Your task to perform on an android device: check battery use Image 0: 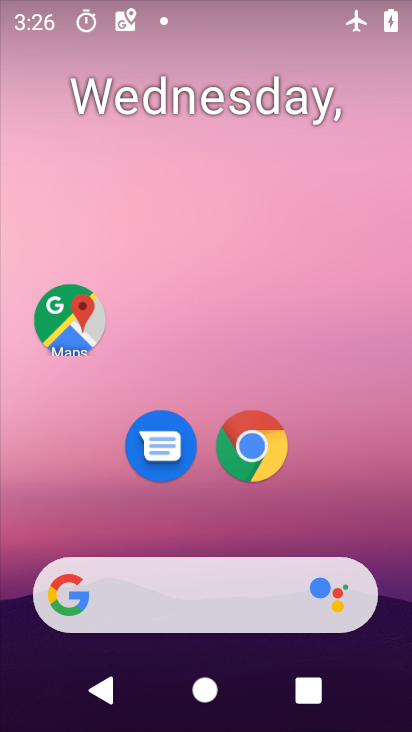
Step 0: drag from (214, 503) to (223, 123)
Your task to perform on an android device: check battery use Image 1: 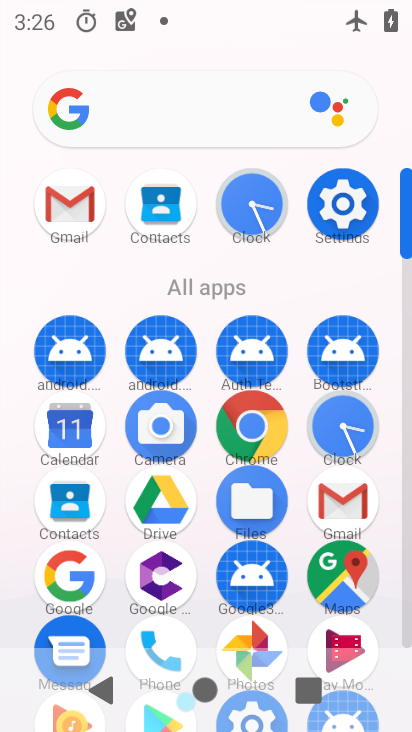
Step 1: click (346, 214)
Your task to perform on an android device: check battery use Image 2: 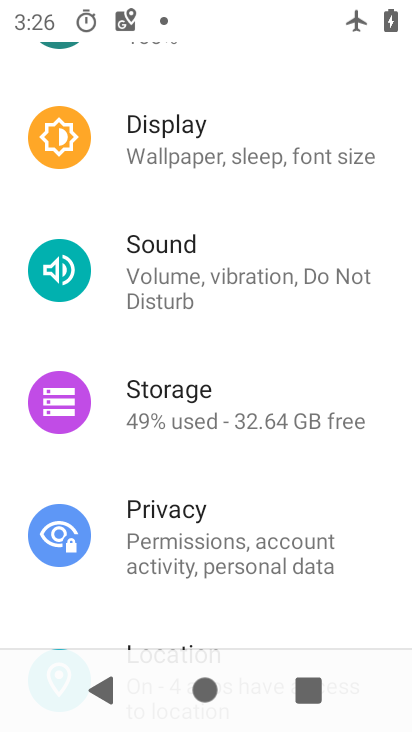
Step 2: drag from (228, 216) to (248, 576)
Your task to perform on an android device: check battery use Image 3: 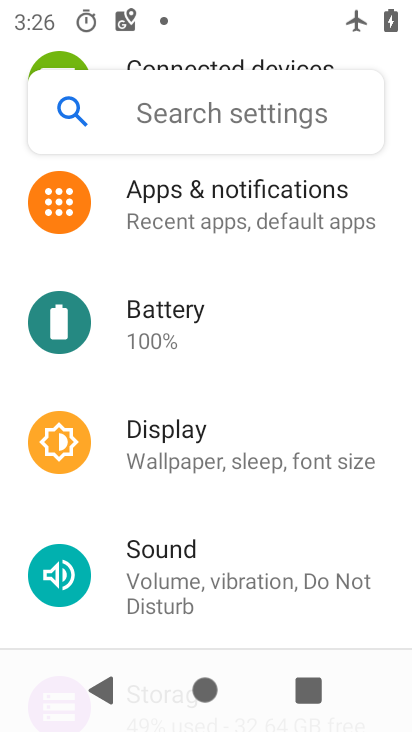
Step 3: click (174, 303)
Your task to perform on an android device: check battery use Image 4: 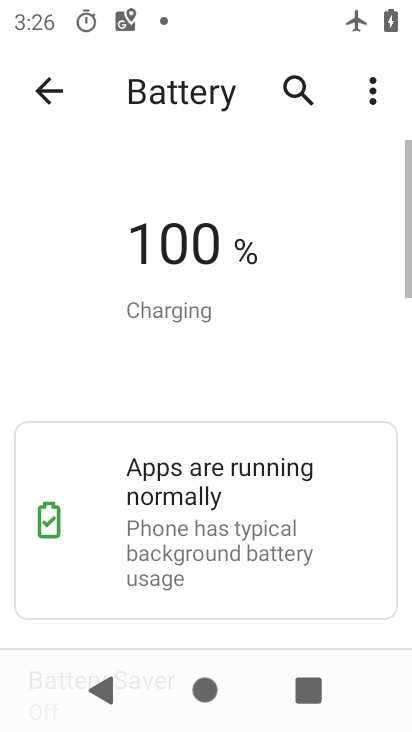
Step 4: click (365, 81)
Your task to perform on an android device: check battery use Image 5: 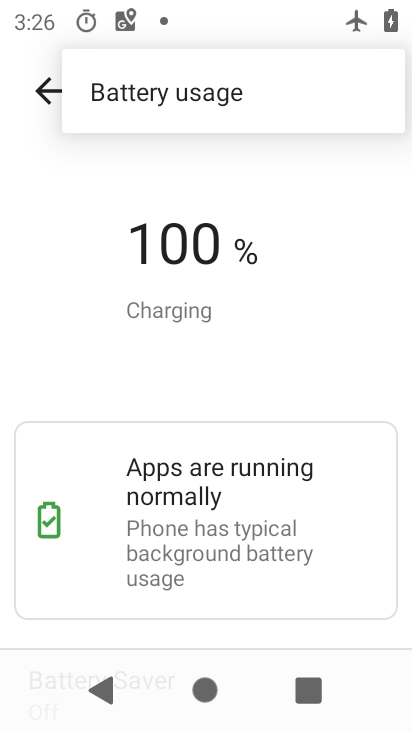
Step 5: click (243, 81)
Your task to perform on an android device: check battery use Image 6: 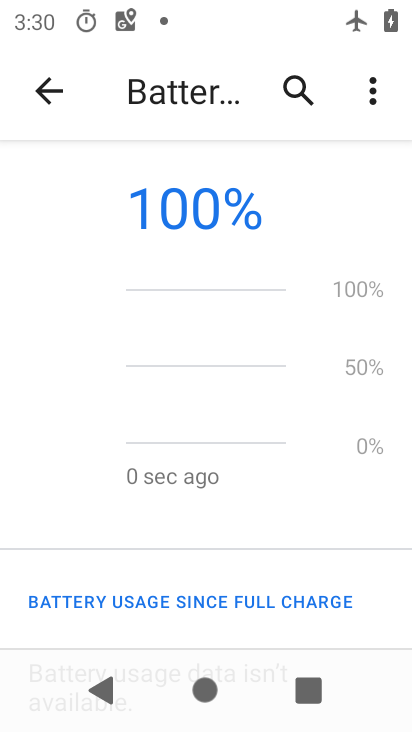
Step 6: task complete